Your task to perform on an android device: check out phone information Image 0: 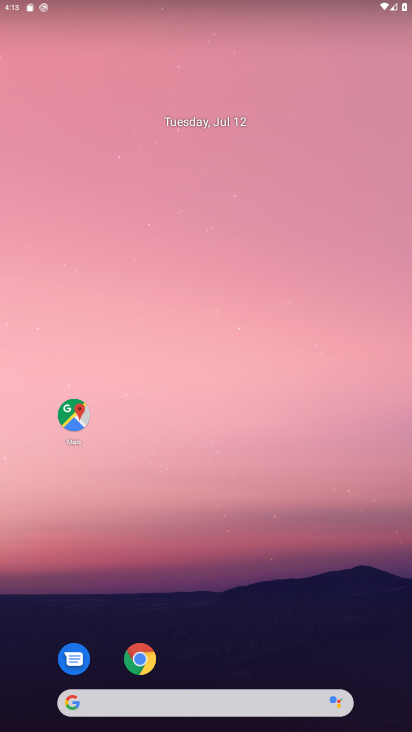
Step 0: drag from (117, 591) to (325, 100)
Your task to perform on an android device: check out phone information Image 1: 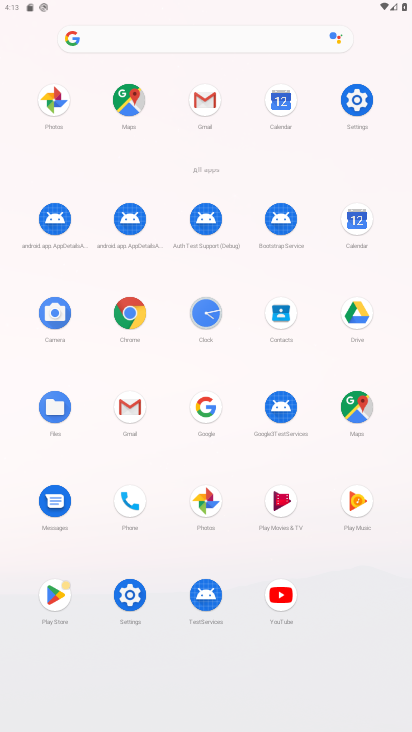
Step 1: click (125, 505)
Your task to perform on an android device: check out phone information Image 2: 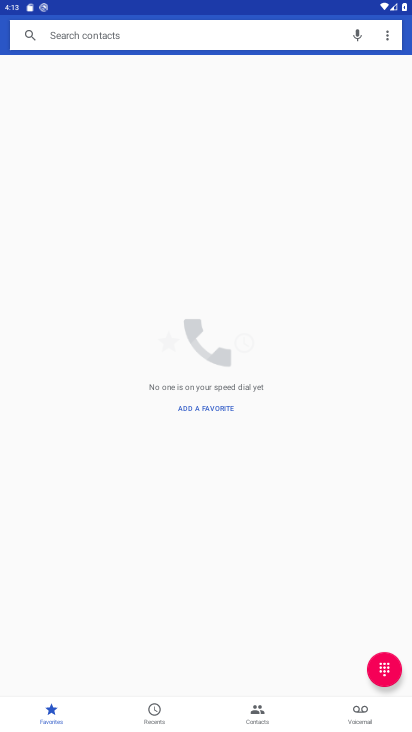
Step 2: click (254, 718)
Your task to perform on an android device: check out phone information Image 3: 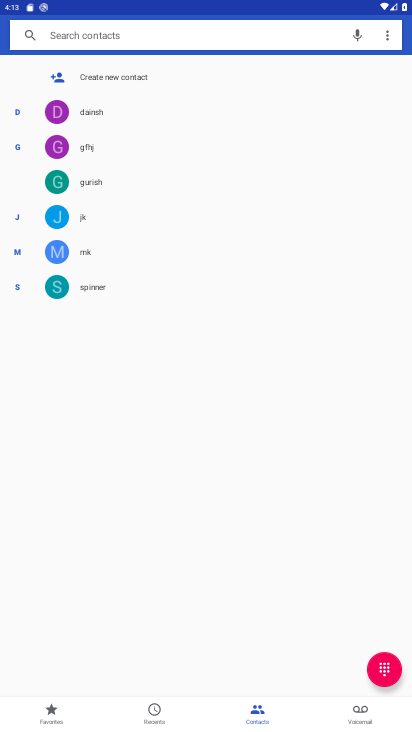
Step 3: task complete